Your task to perform on an android device: Open Chrome and go to settings Image 0: 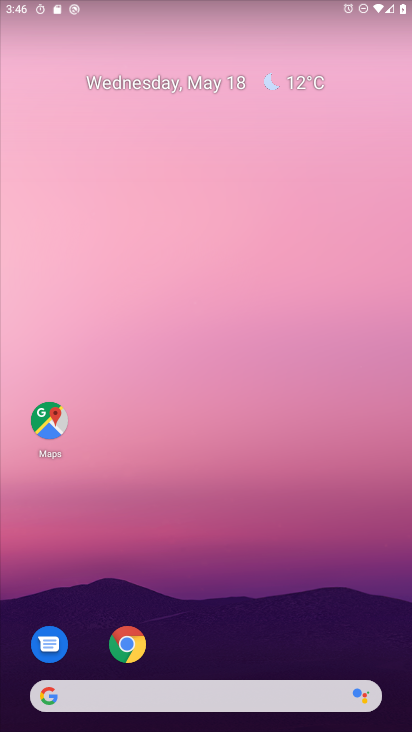
Step 0: click (120, 654)
Your task to perform on an android device: Open Chrome and go to settings Image 1: 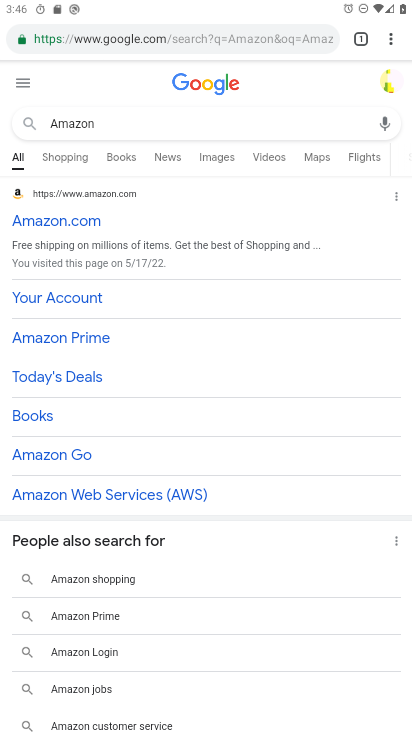
Step 1: click (388, 32)
Your task to perform on an android device: Open Chrome and go to settings Image 2: 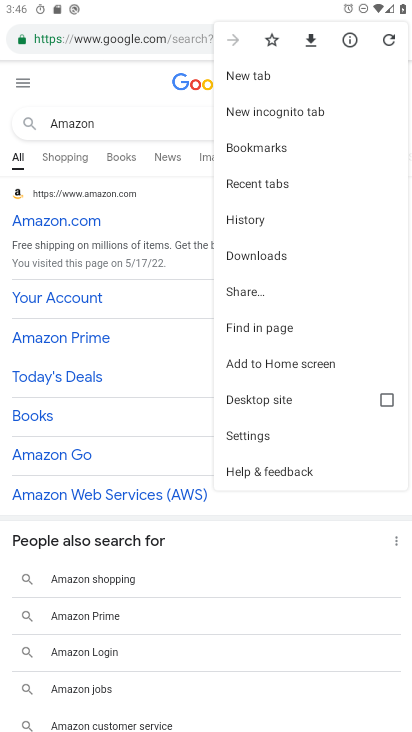
Step 2: click (248, 432)
Your task to perform on an android device: Open Chrome and go to settings Image 3: 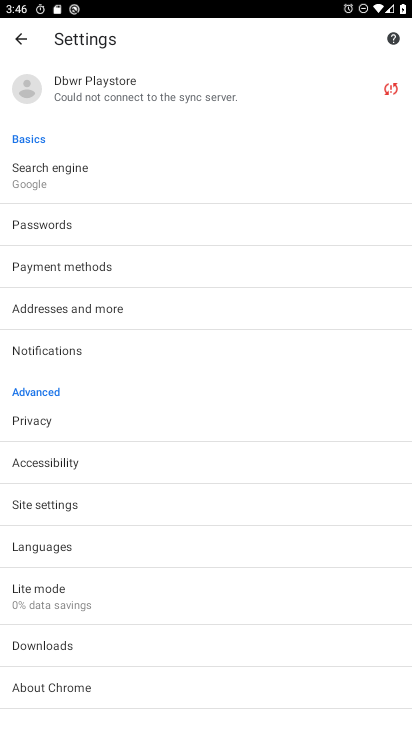
Step 3: task complete